Your task to perform on an android device: all mails in gmail Image 0: 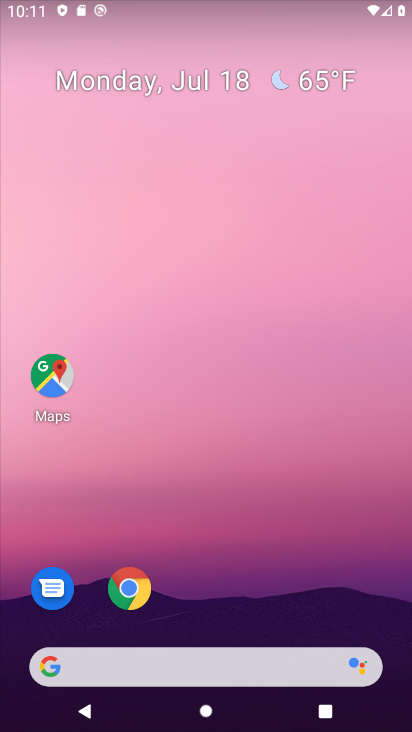
Step 0: drag from (228, 401) to (150, 35)
Your task to perform on an android device: all mails in gmail Image 1: 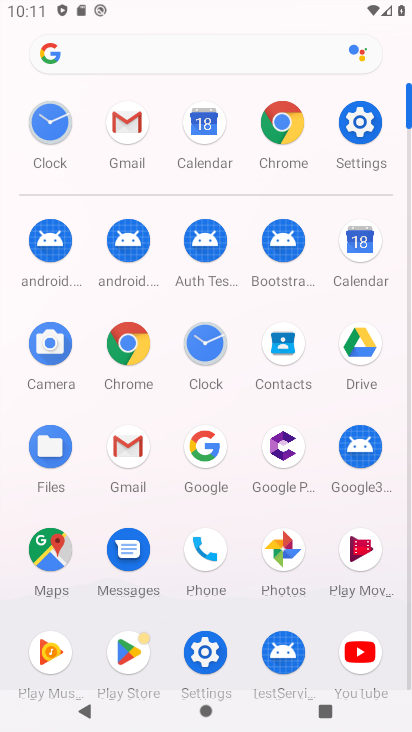
Step 1: click (128, 126)
Your task to perform on an android device: all mails in gmail Image 2: 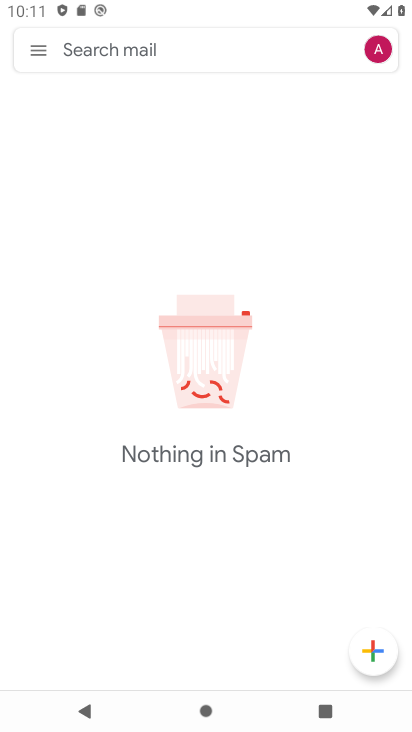
Step 2: click (33, 49)
Your task to perform on an android device: all mails in gmail Image 3: 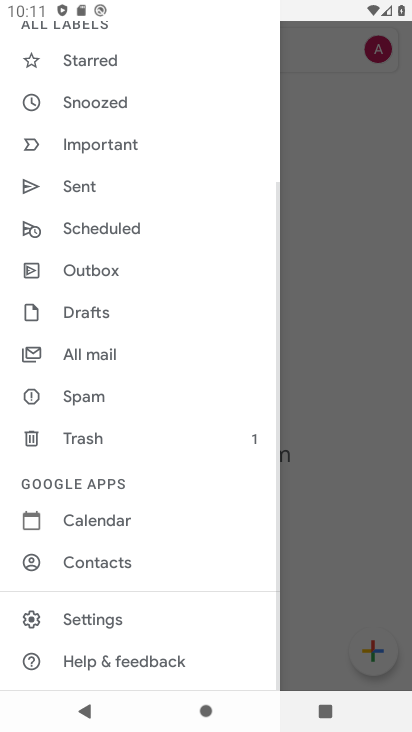
Step 3: click (93, 354)
Your task to perform on an android device: all mails in gmail Image 4: 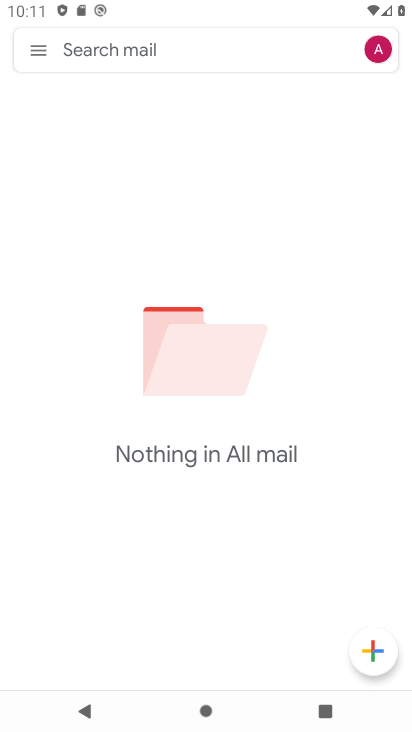
Step 4: task complete